Your task to perform on an android device: Go to eBay Image 0: 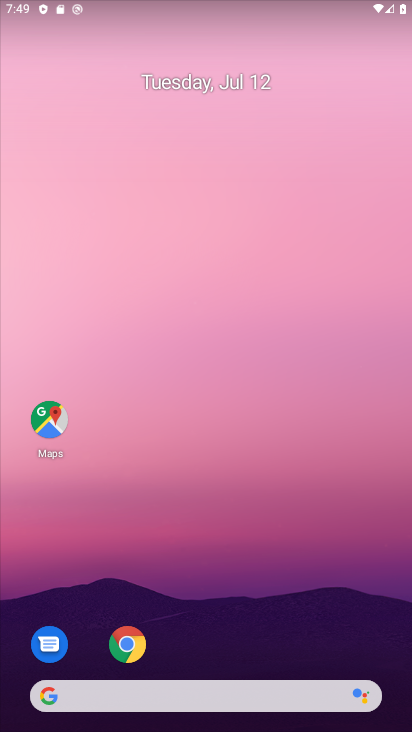
Step 0: press home button
Your task to perform on an android device: Go to eBay Image 1: 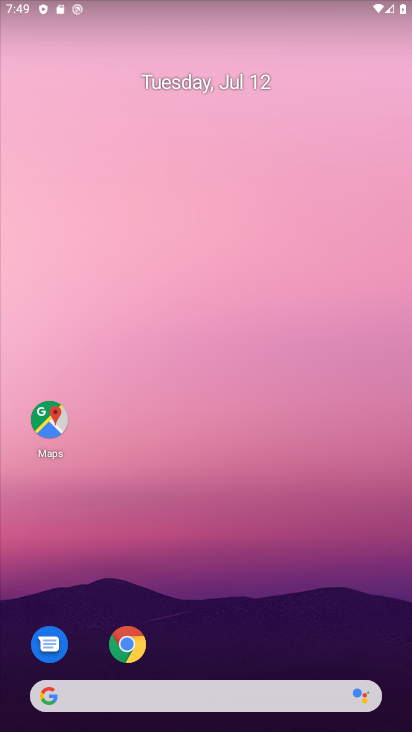
Step 1: press home button
Your task to perform on an android device: Go to eBay Image 2: 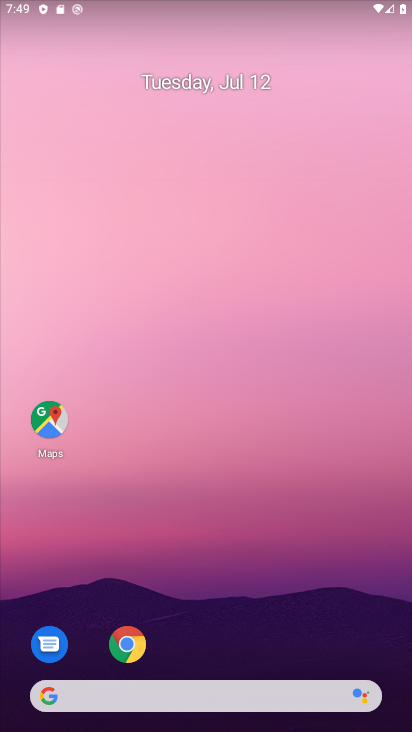
Step 2: click (122, 641)
Your task to perform on an android device: Go to eBay Image 3: 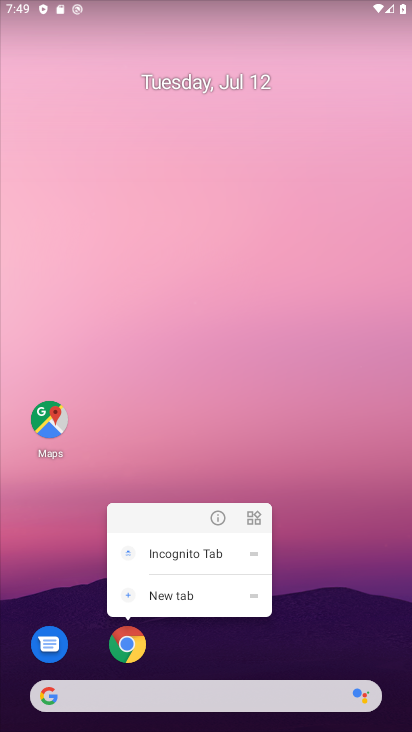
Step 3: click (128, 635)
Your task to perform on an android device: Go to eBay Image 4: 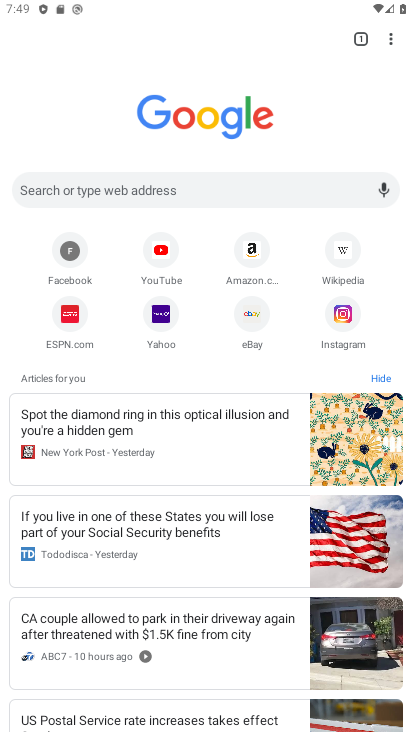
Step 4: click (254, 312)
Your task to perform on an android device: Go to eBay Image 5: 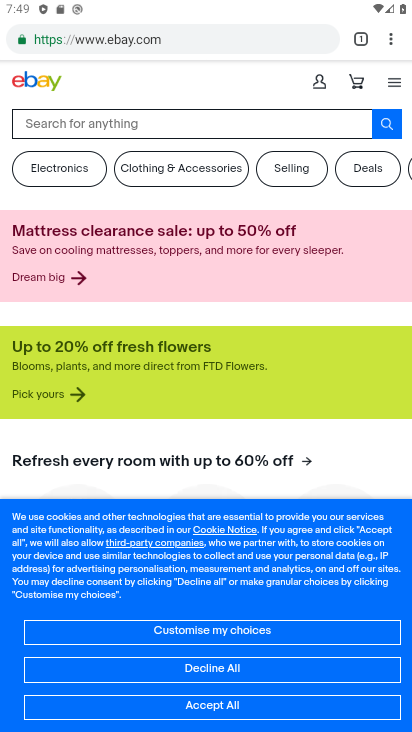
Step 5: click (245, 708)
Your task to perform on an android device: Go to eBay Image 6: 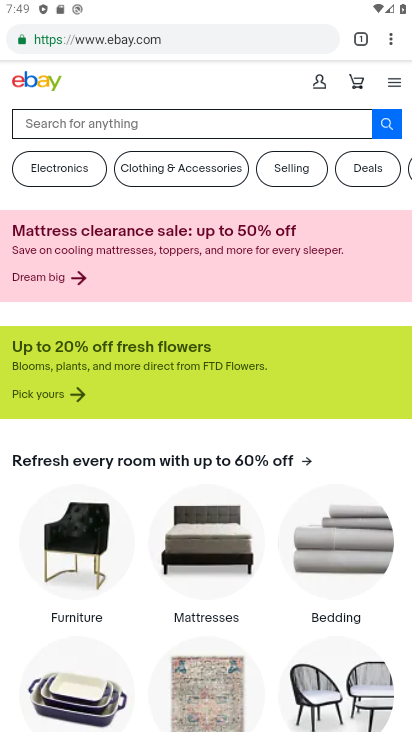
Step 6: task complete